Your task to perform on an android device: turn off priority inbox in the gmail app Image 0: 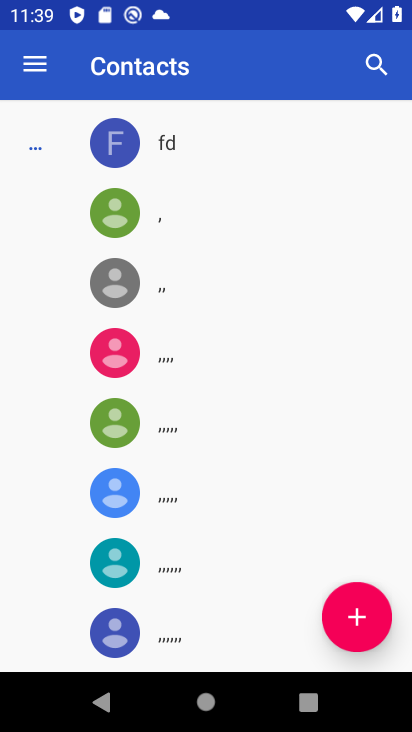
Step 0: press home button
Your task to perform on an android device: turn off priority inbox in the gmail app Image 1: 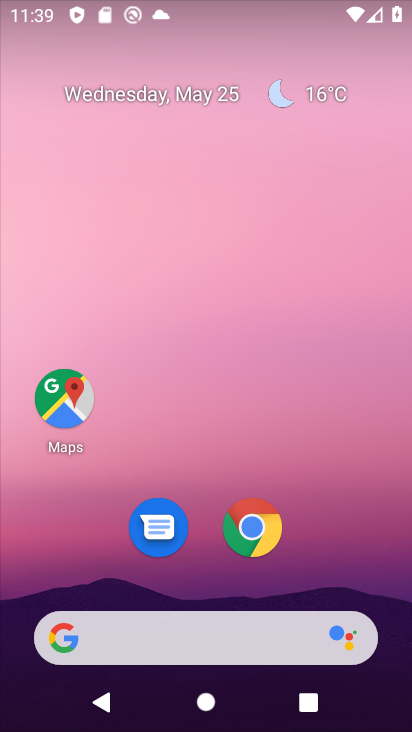
Step 1: drag from (363, 444) to (235, 0)
Your task to perform on an android device: turn off priority inbox in the gmail app Image 2: 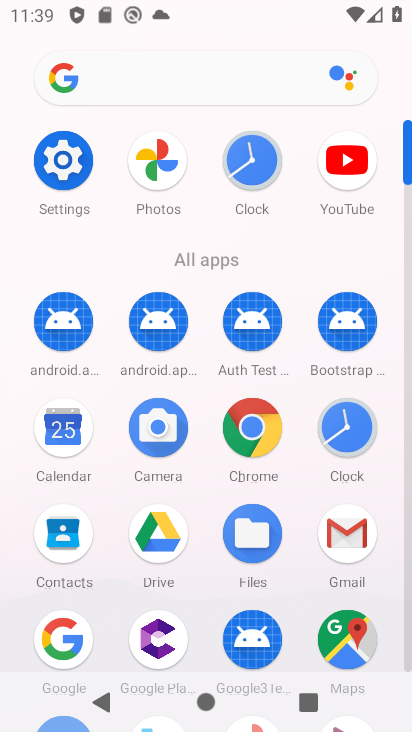
Step 2: click (340, 527)
Your task to perform on an android device: turn off priority inbox in the gmail app Image 3: 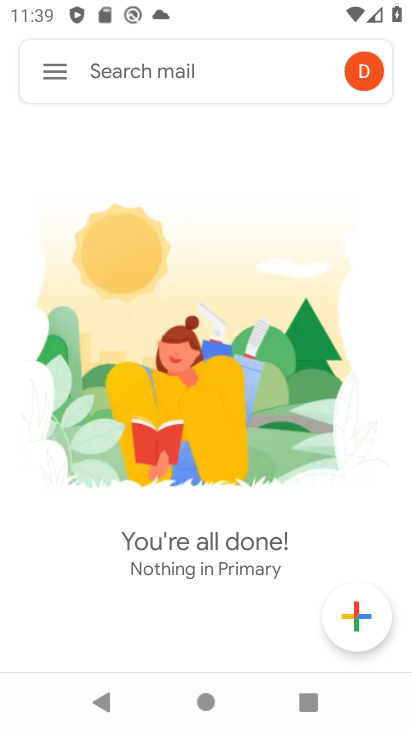
Step 3: click (59, 81)
Your task to perform on an android device: turn off priority inbox in the gmail app Image 4: 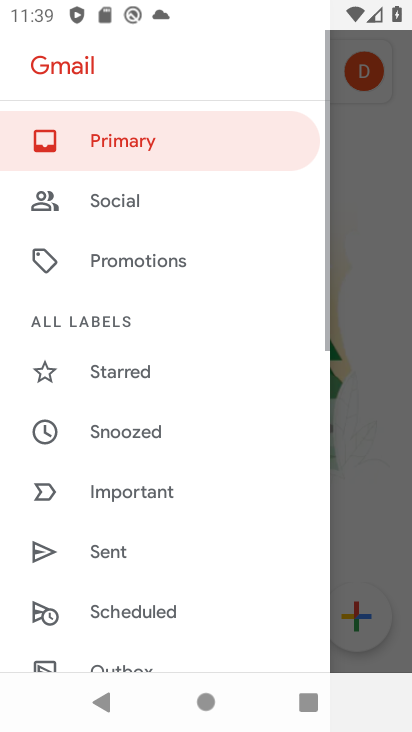
Step 4: drag from (193, 520) to (238, 89)
Your task to perform on an android device: turn off priority inbox in the gmail app Image 5: 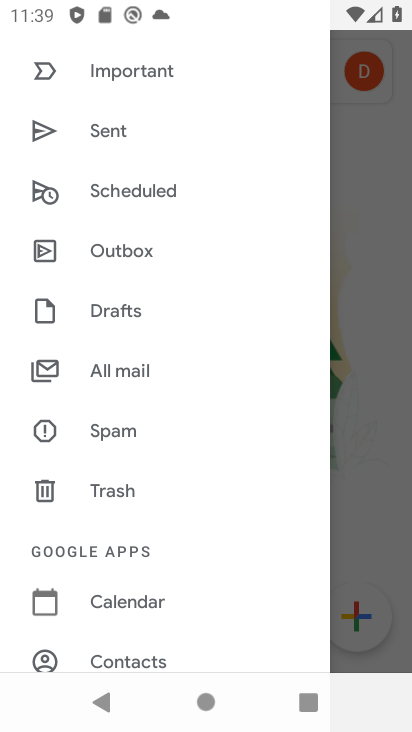
Step 5: drag from (120, 610) to (216, 93)
Your task to perform on an android device: turn off priority inbox in the gmail app Image 6: 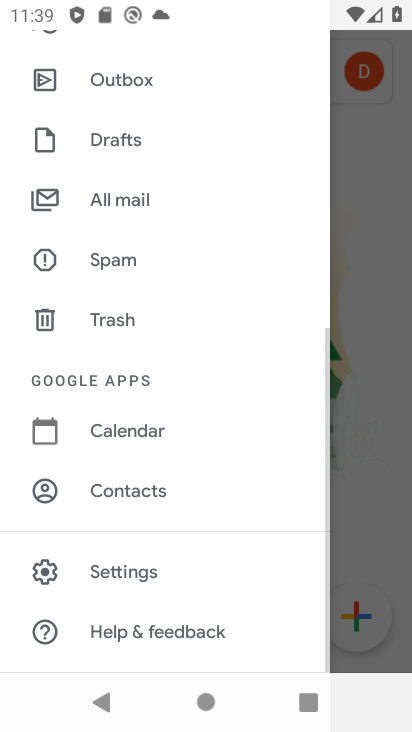
Step 6: click (115, 572)
Your task to perform on an android device: turn off priority inbox in the gmail app Image 7: 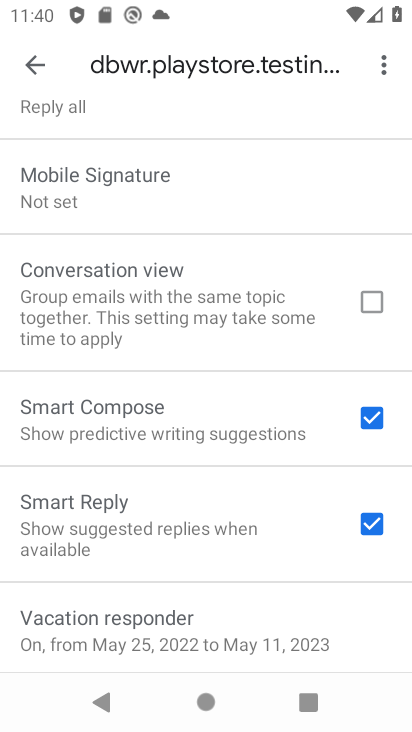
Step 7: drag from (190, 190) to (262, 503)
Your task to perform on an android device: turn off priority inbox in the gmail app Image 8: 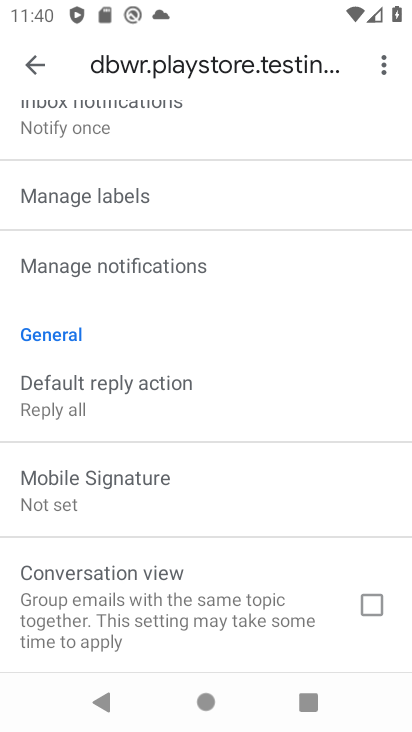
Step 8: drag from (263, 210) to (225, 566)
Your task to perform on an android device: turn off priority inbox in the gmail app Image 9: 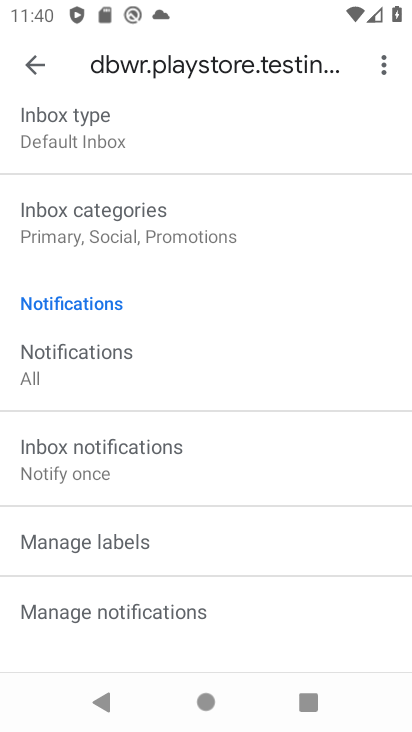
Step 9: drag from (246, 246) to (281, 541)
Your task to perform on an android device: turn off priority inbox in the gmail app Image 10: 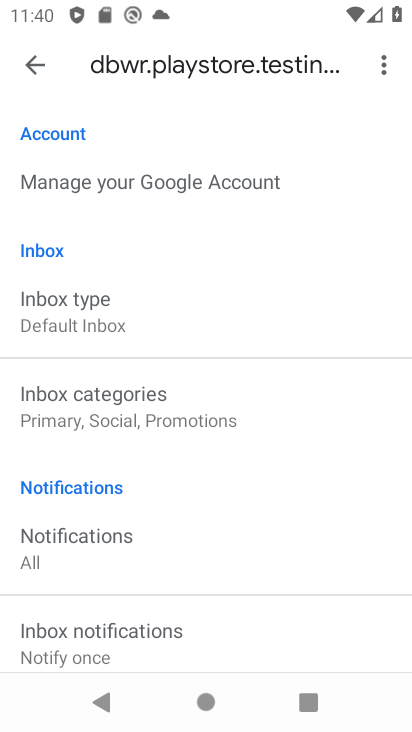
Step 10: click (85, 333)
Your task to perform on an android device: turn off priority inbox in the gmail app Image 11: 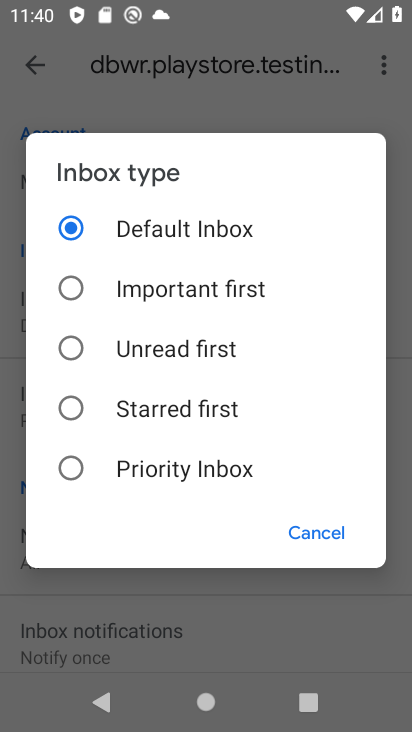
Step 11: task complete